Your task to perform on an android device: turn off smart reply in the gmail app Image 0: 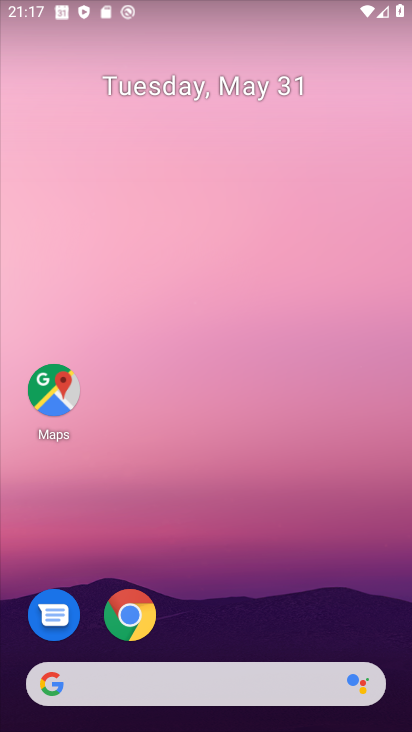
Step 0: drag from (287, 615) to (284, 55)
Your task to perform on an android device: turn off smart reply in the gmail app Image 1: 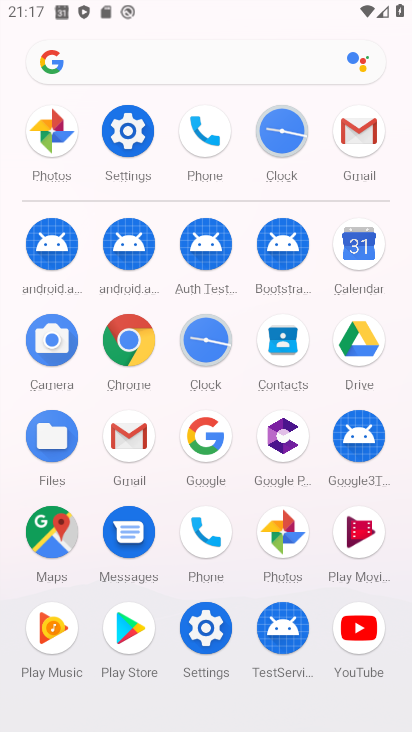
Step 1: click (361, 138)
Your task to perform on an android device: turn off smart reply in the gmail app Image 2: 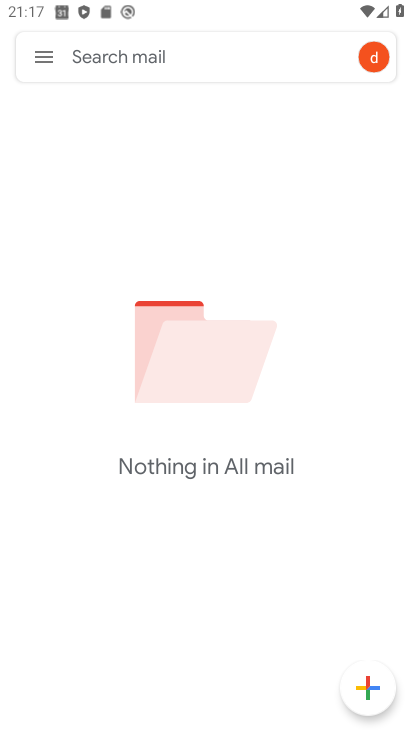
Step 2: click (43, 53)
Your task to perform on an android device: turn off smart reply in the gmail app Image 3: 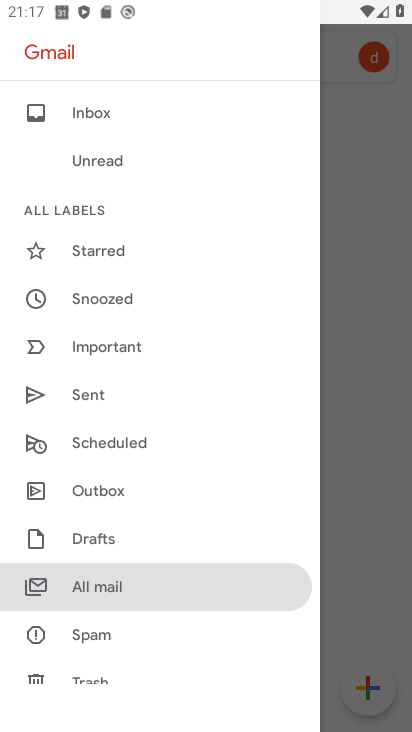
Step 3: drag from (279, 670) to (252, 296)
Your task to perform on an android device: turn off smart reply in the gmail app Image 4: 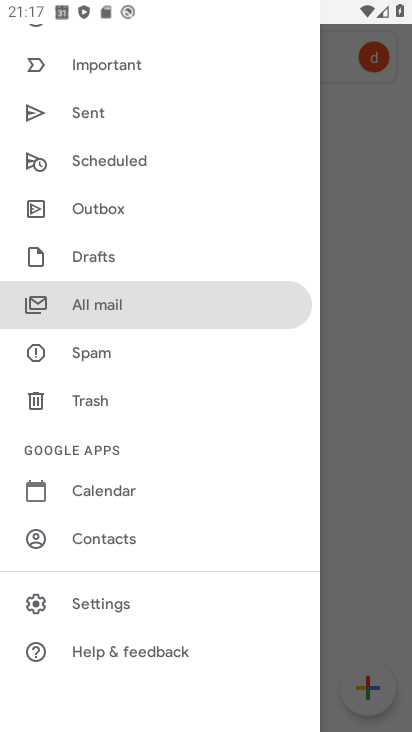
Step 4: click (108, 603)
Your task to perform on an android device: turn off smart reply in the gmail app Image 5: 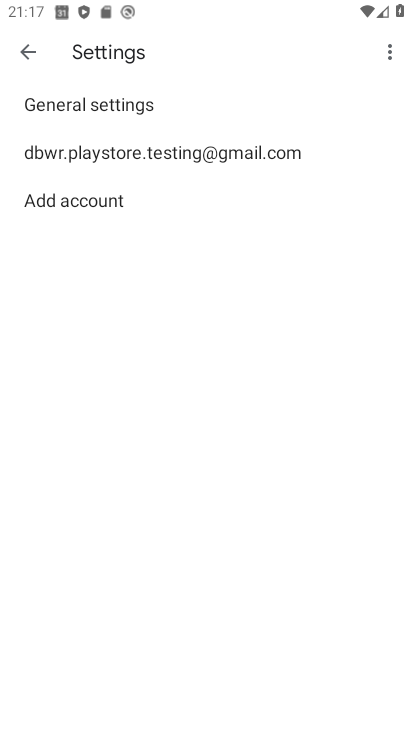
Step 5: click (89, 144)
Your task to perform on an android device: turn off smart reply in the gmail app Image 6: 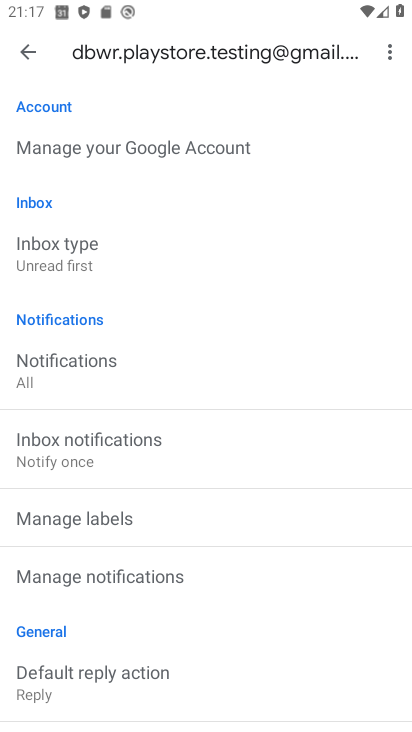
Step 6: drag from (354, 688) to (329, 269)
Your task to perform on an android device: turn off smart reply in the gmail app Image 7: 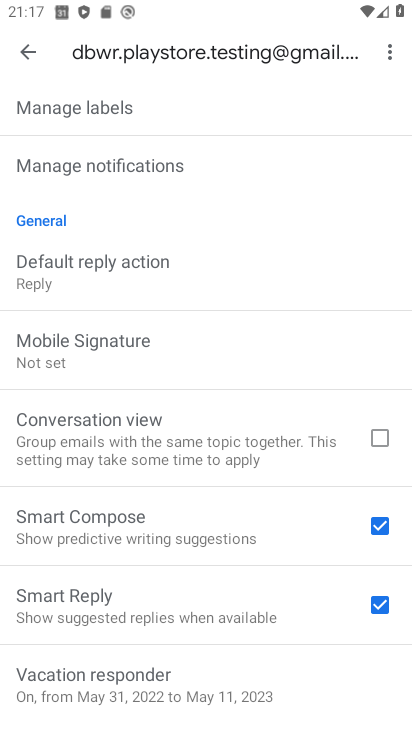
Step 7: click (377, 606)
Your task to perform on an android device: turn off smart reply in the gmail app Image 8: 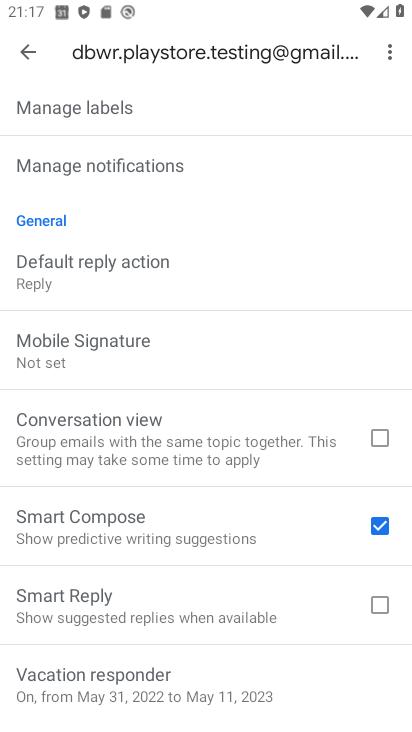
Step 8: task complete